Your task to perform on an android device: turn on the 24-hour format for clock Image 0: 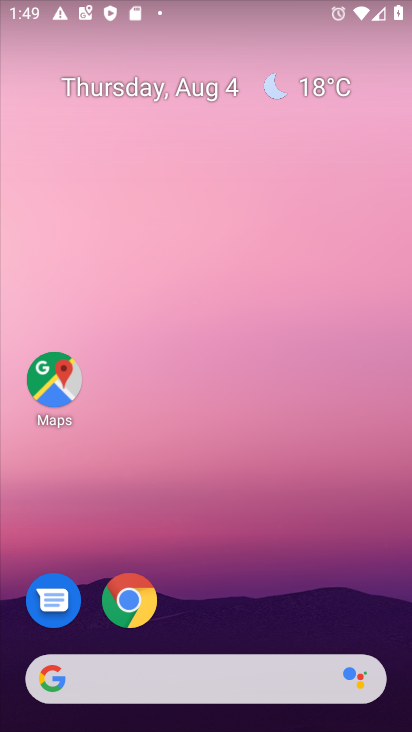
Step 0: drag from (207, 647) to (318, 23)
Your task to perform on an android device: turn on the 24-hour format for clock Image 1: 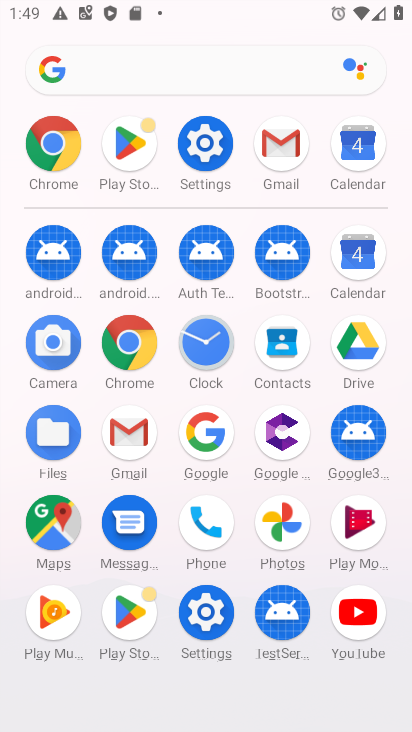
Step 1: click (208, 343)
Your task to perform on an android device: turn on the 24-hour format for clock Image 2: 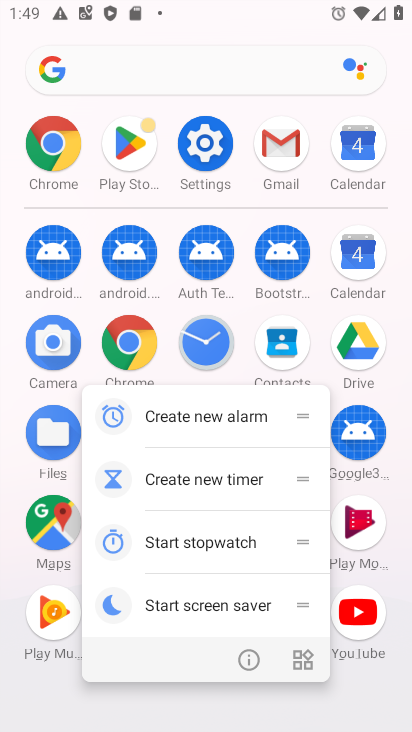
Step 2: click (208, 345)
Your task to perform on an android device: turn on the 24-hour format for clock Image 3: 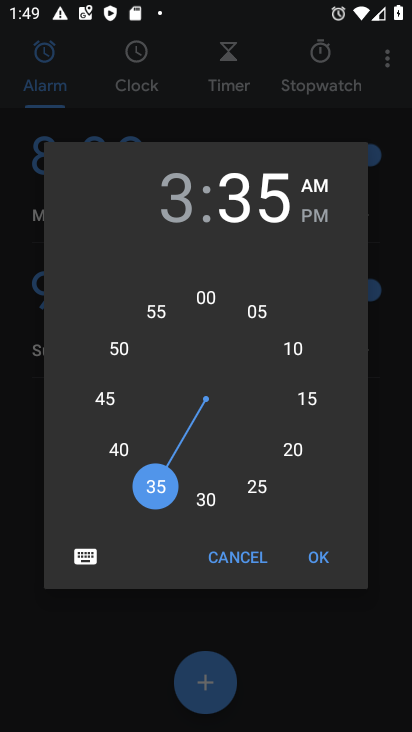
Step 3: click (372, 93)
Your task to perform on an android device: turn on the 24-hour format for clock Image 4: 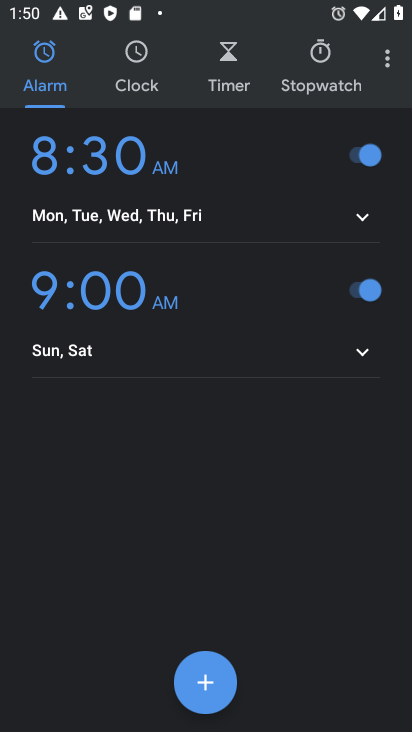
Step 4: click (386, 57)
Your task to perform on an android device: turn on the 24-hour format for clock Image 5: 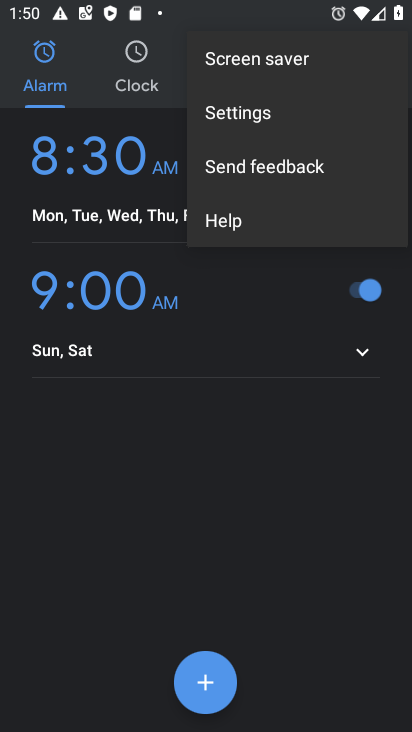
Step 5: click (243, 117)
Your task to perform on an android device: turn on the 24-hour format for clock Image 6: 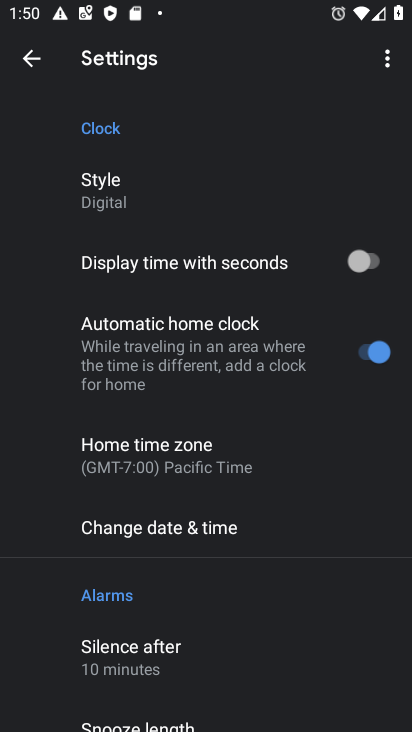
Step 6: click (203, 520)
Your task to perform on an android device: turn on the 24-hour format for clock Image 7: 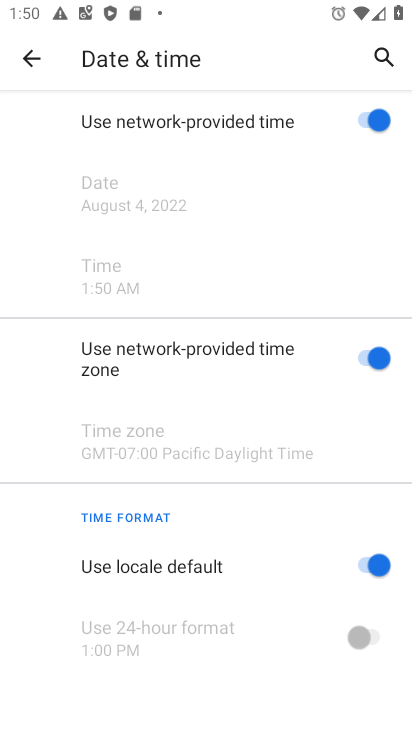
Step 7: click (367, 567)
Your task to perform on an android device: turn on the 24-hour format for clock Image 8: 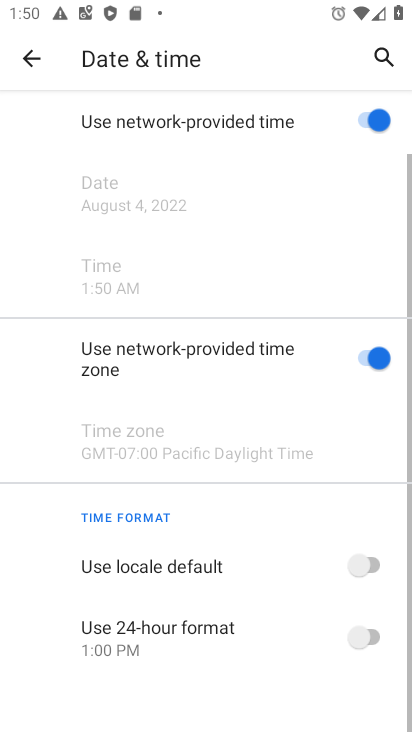
Step 8: click (379, 637)
Your task to perform on an android device: turn on the 24-hour format for clock Image 9: 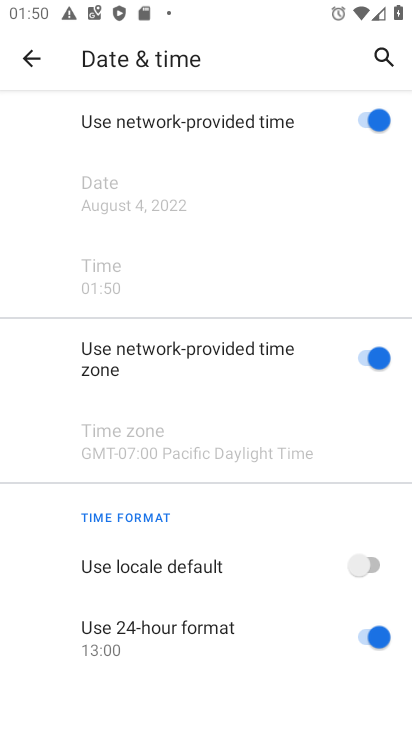
Step 9: task complete